Your task to perform on an android device: turn on notifications settings in the gmail app Image 0: 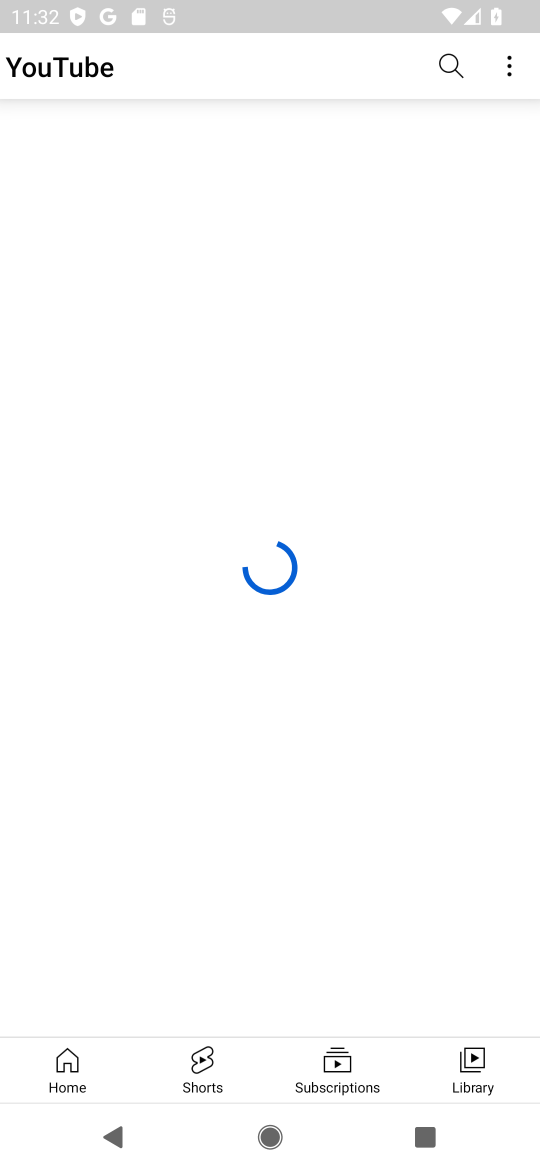
Step 0: press home button
Your task to perform on an android device: turn on notifications settings in the gmail app Image 1: 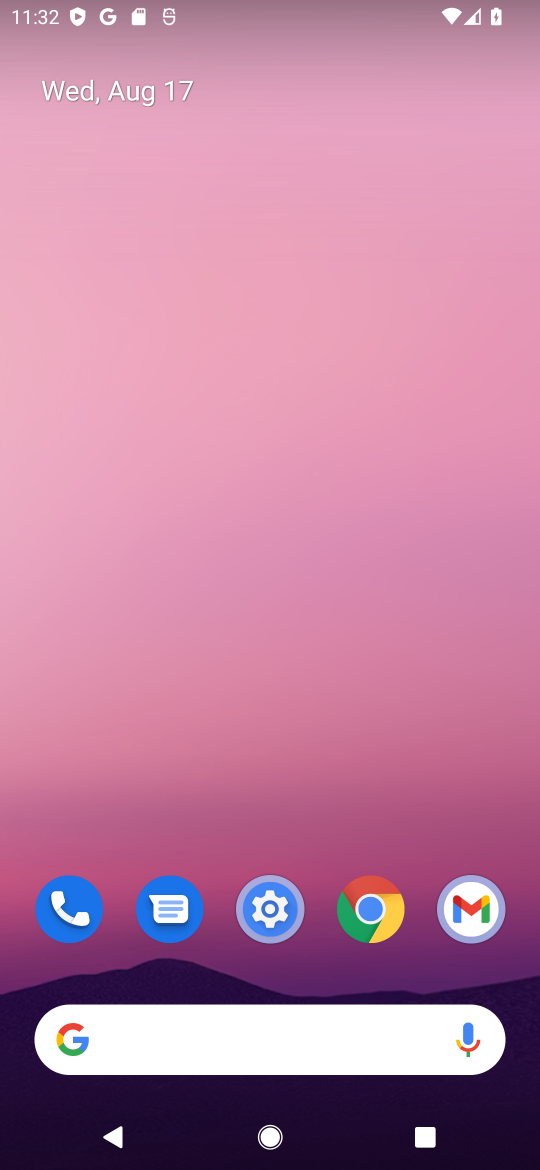
Step 1: click (475, 903)
Your task to perform on an android device: turn on notifications settings in the gmail app Image 2: 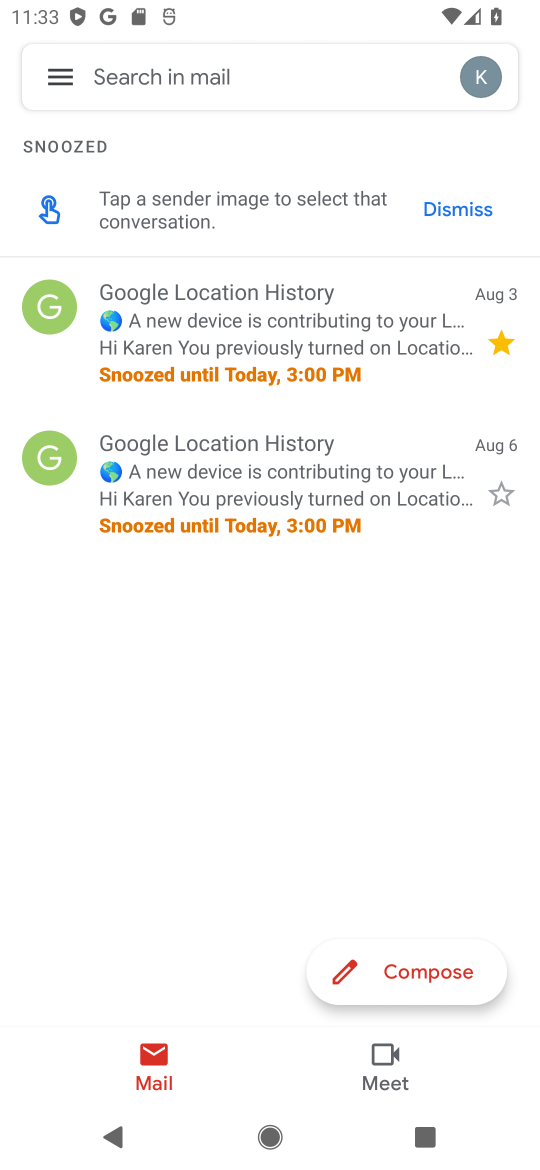
Step 2: click (51, 76)
Your task to perform on an android device: turn on notifications settings in the gmail app Image 3: 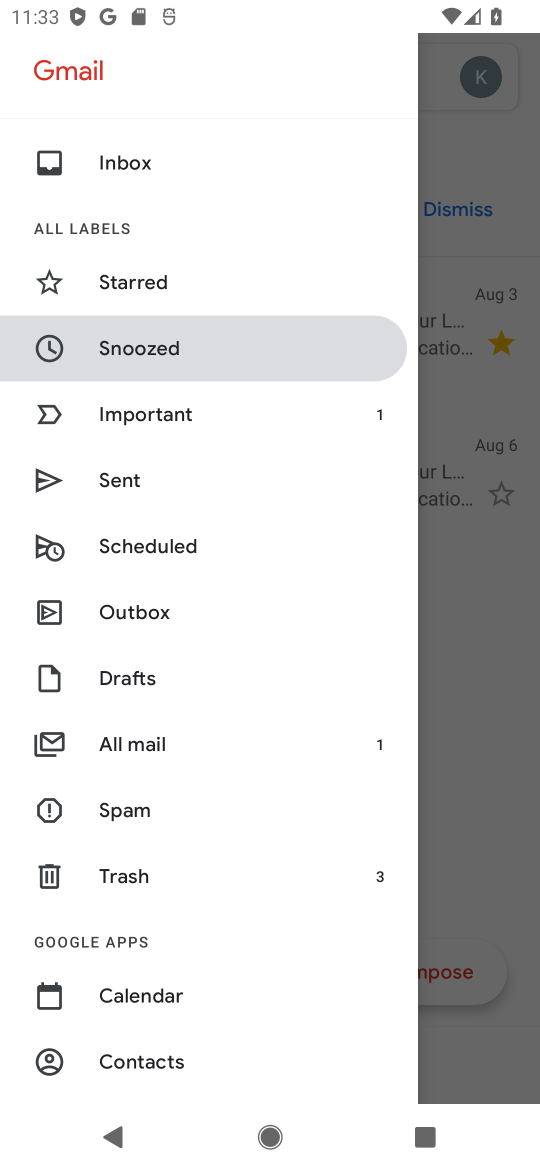
Step 3: drag from (200, 886) to (227, 425)
Your task to perform on an android device: turn on notifications settings in the gmail app Image 4: 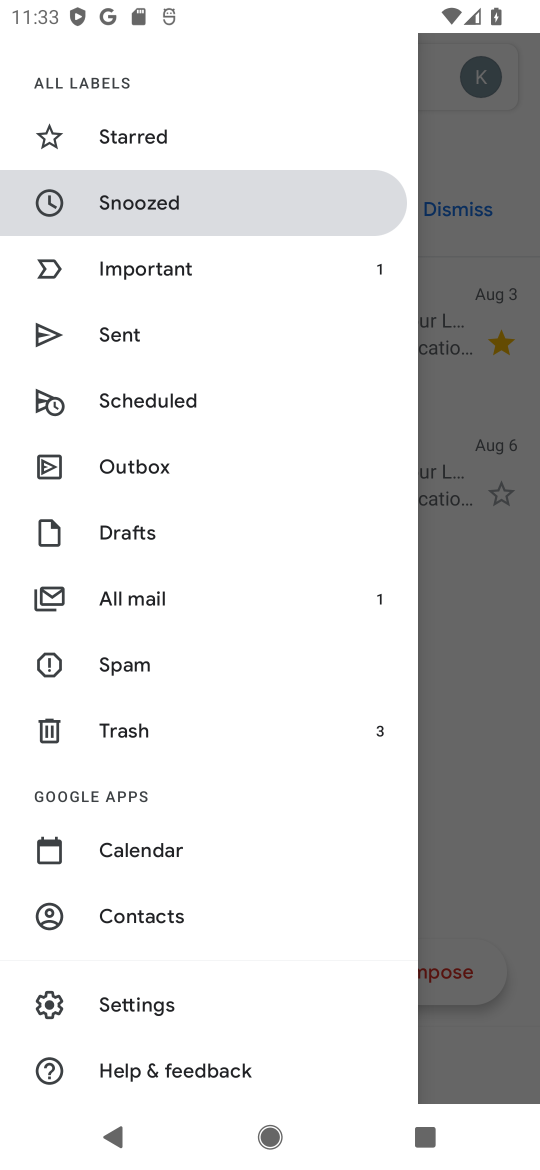
Step 4: click (146, 995)
Your task to perform on an android device: turn on notifications settings in the gmail app Image 5: 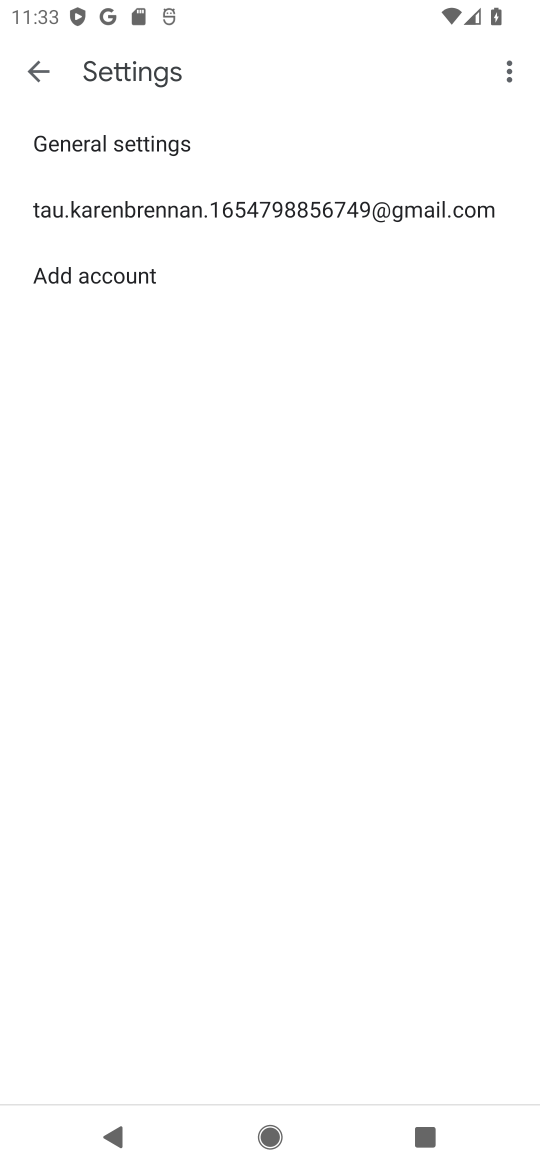
Step 5: click (97, 138)
Your task to perform on an android device: turn on notifications settings in the gmail app Image 6: 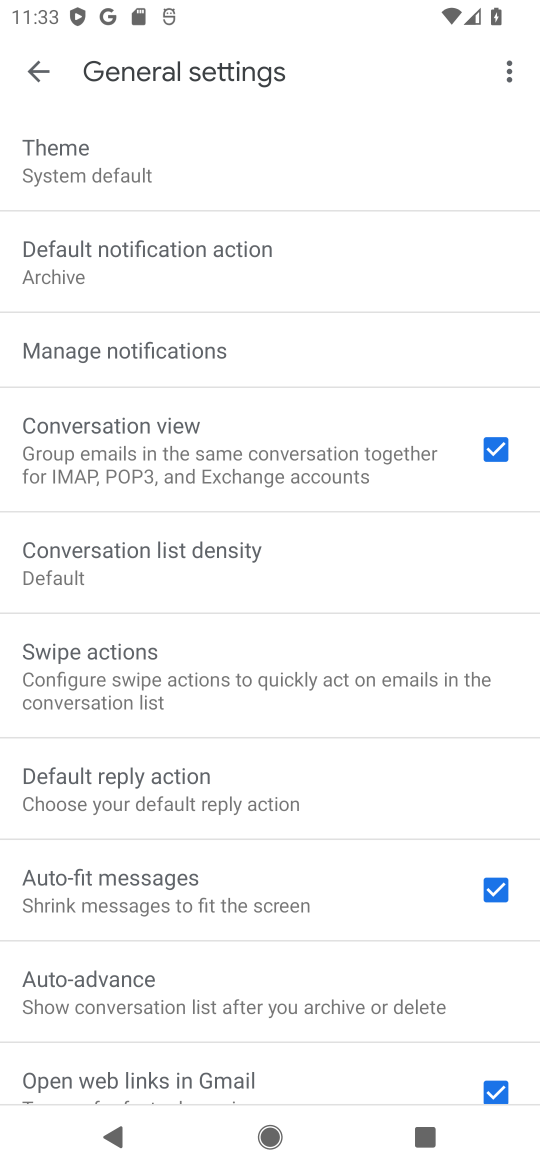
Step 6: click (108, 343)
Your task to perform on an android device: turn on notifications settings in the gmail app Image 7: 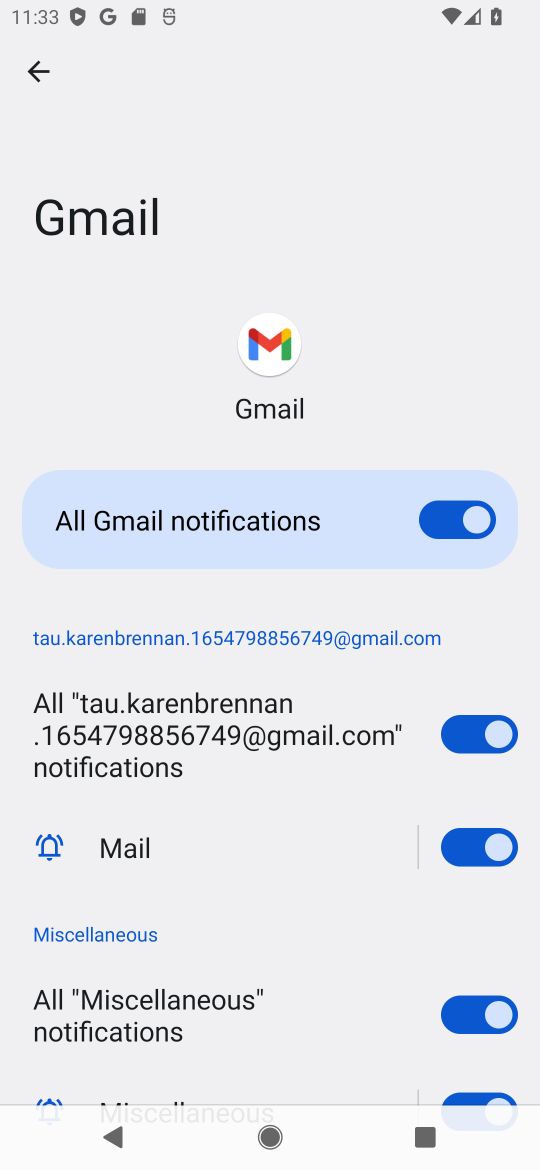
Step 7: task complete